Your task to perform on an android device: see tabs open on other devices in the chrome app Image 0: 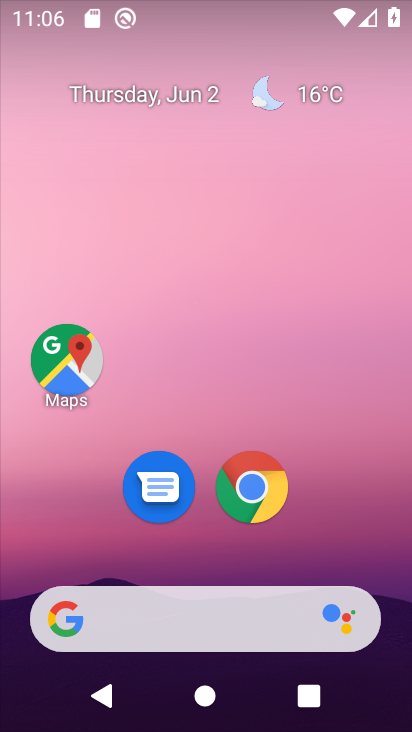
Step 0: click (252, 489)
Your task to perform on an android device: see tabs open on other devices in the chrome app Image 1: 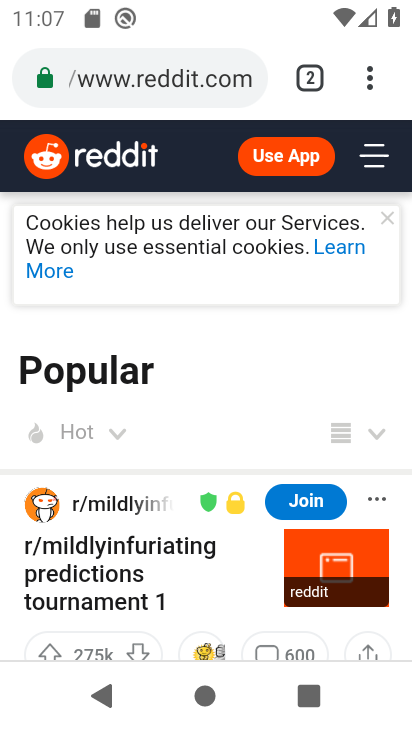
Step 1: click (370, 74)
Your task to perform on an android device: see tabs open on other devices in the chrome app Image 2: 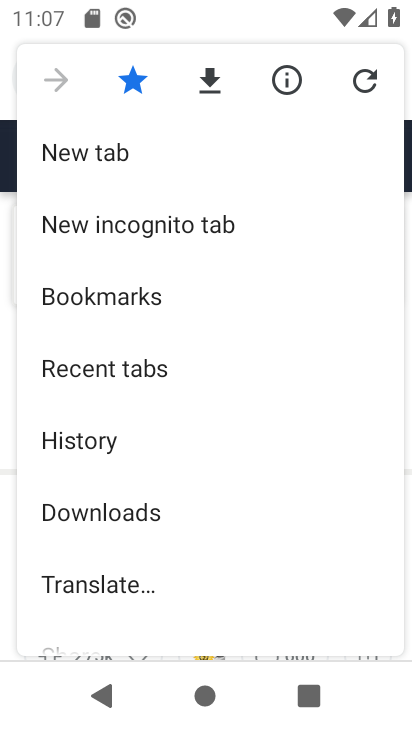
Step 2: click (134, 367)
Your task to perform on an android device: see tabs open on other devices in the chrome app Image 3: 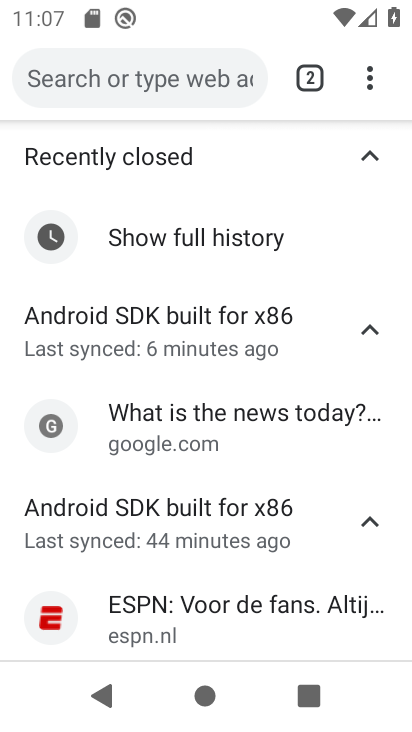
Step 3: task complete